Your task to perform on an android device: Show me popular videos on Youtube Image 0: 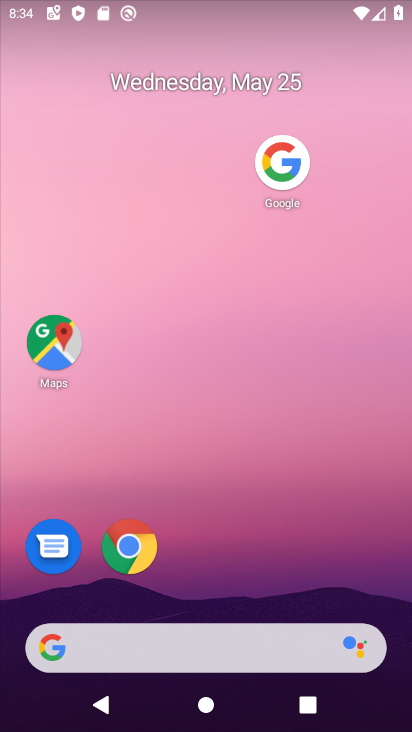
Step 0: press home button
Your task to perform on an android device: Show me popular videos on Youtube Image 1: 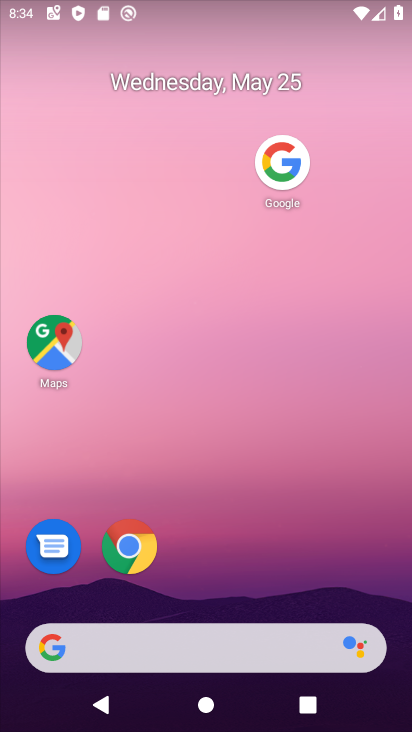
Step 1: drag from (154, 620) to (306, 139)
Your task to perform on an android device: Show me popular videos on Youtube Image 2: 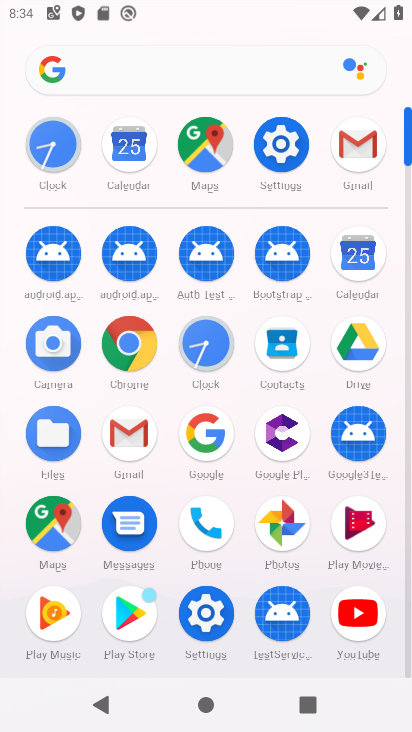
Step 2: click (354, 623)
Your task to perform on an android device: Show me popular videos on Youtube Image 3: 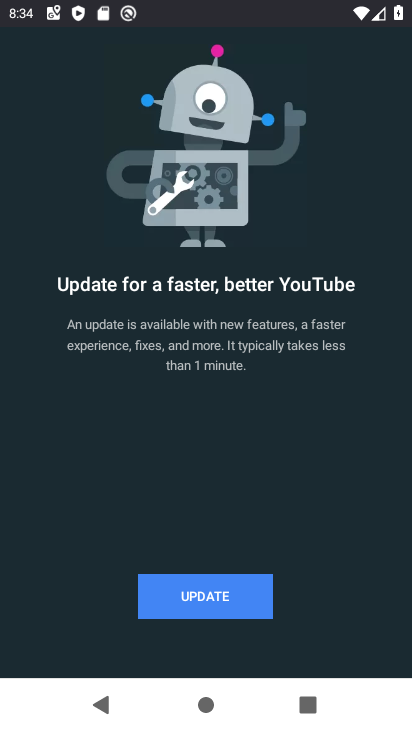
Step 3: click (202, 594)
Your task to perform on an android device: Show me popular videos on Youtube Image 4: 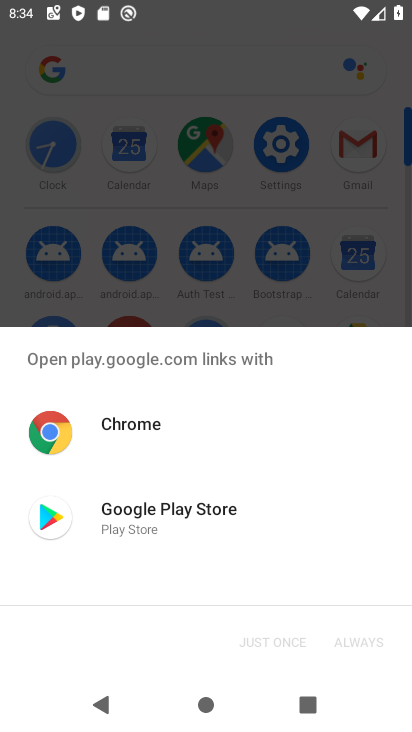
Step 4: click (155, 508)
Your task to perform on an android device: Show me popular videos on Youtube Image 5: 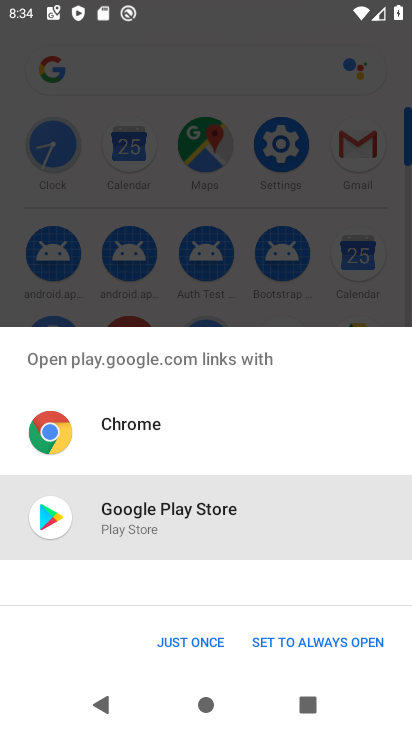
Step 5: click (184, 632)
Your task to perform on an android device: Show me popular videos on Youtube Image 6: 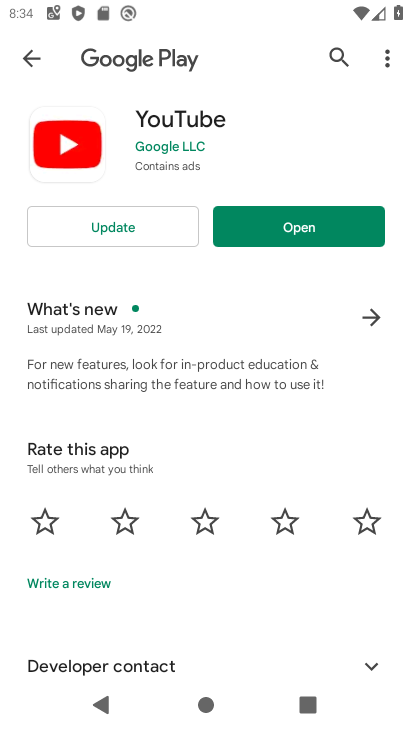
Step 6: click (96, 234)
Your task to perform on an android device: Show me popular videos on Youtube Image 7: 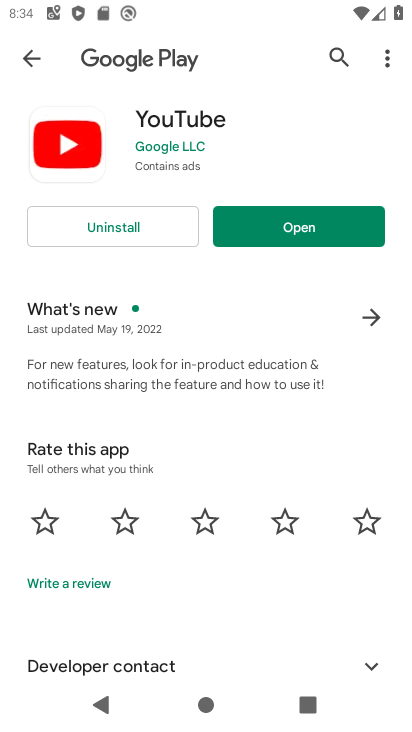
Step 7: click (313, 231)
Your task to perform on an android device: Show me popular videos on Youtube Image 8: 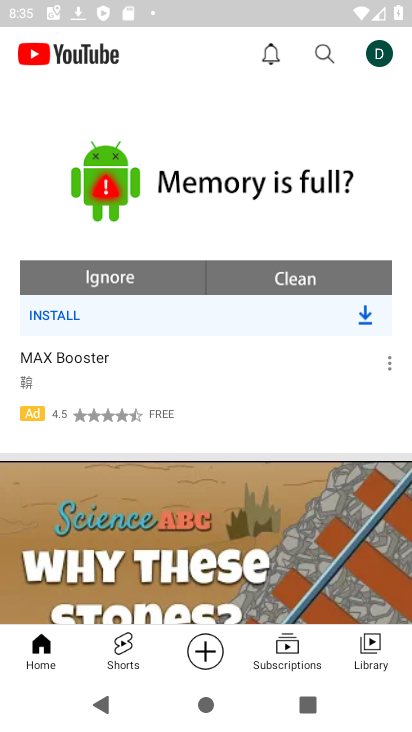
Step 8: drag from (188, 558) to (314, 7)
Your task to perform on an android device: Show me popular videos on Youtube Image 9: 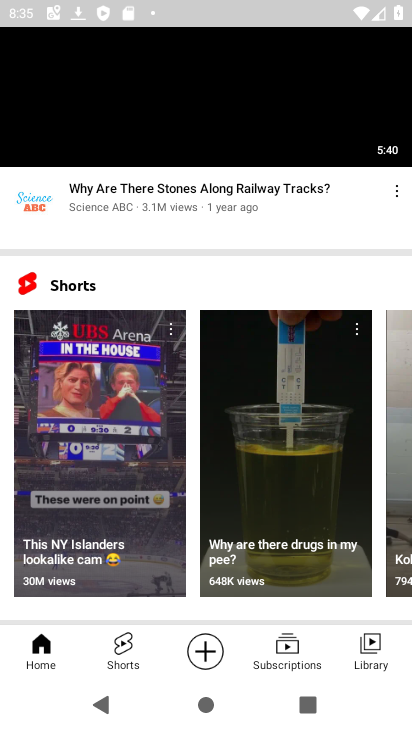
Step 9: drag from (214, 472) to (308, 90)
Your task to perform on an android device: Show me popular videos on Youtube Image 10: 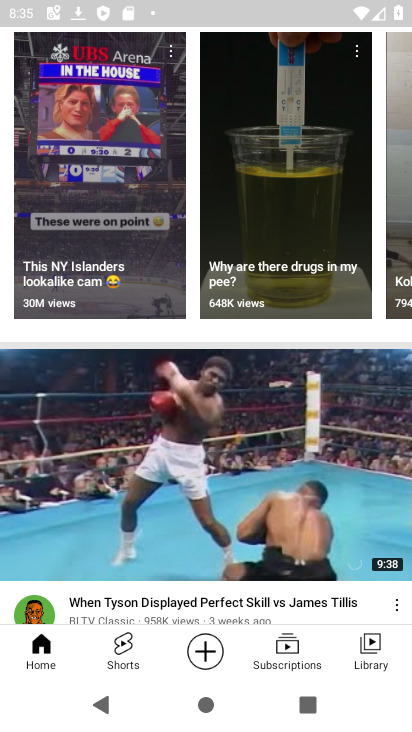
Step 10: click (320, 200)
Your task to perform on an android device: Show me popular videos on Youtube Image 11: 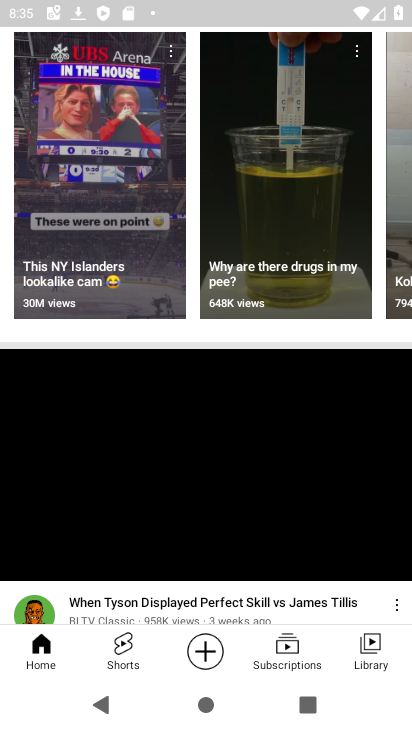
Step 11: task complete